Your task to perform on an android device: Go to internet settings Image 0: 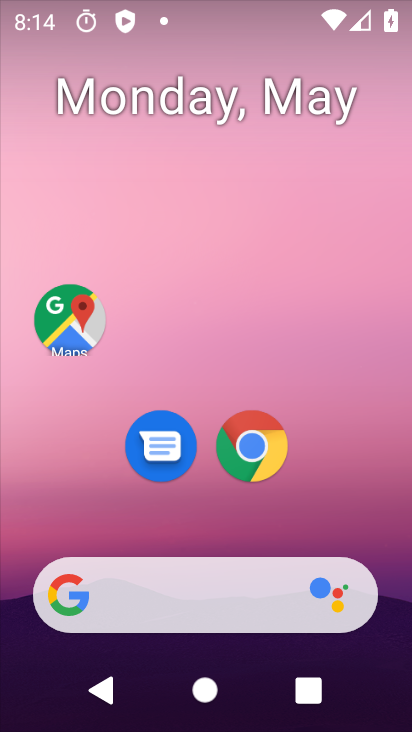
Step 0: drag from (355, 520) to (269, 2)
Your task to perform on an android device: Go to internet settings Image 1: 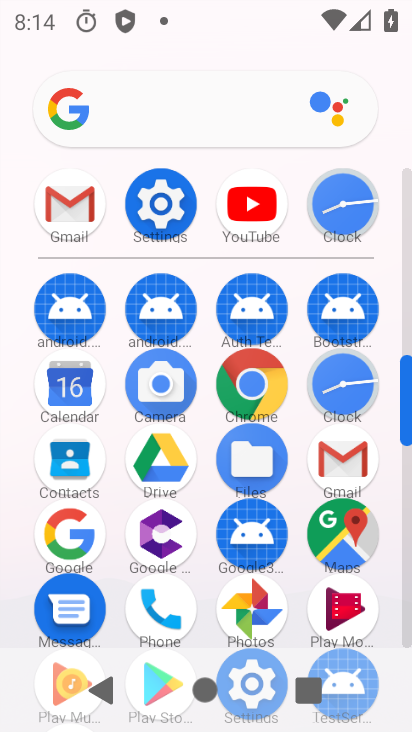
Step 1: click (156, 205)
Your task to perform on an android device: Go to internet settings Image 2: 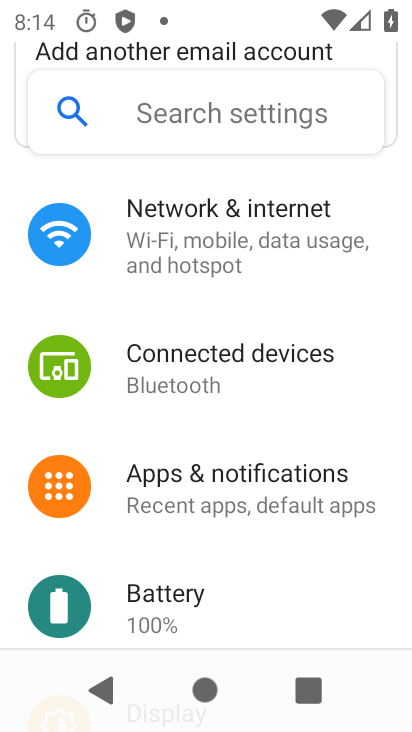
Step 2: click (172, 206)
Your task to perform on an android device: Go to internet settings Image 3: 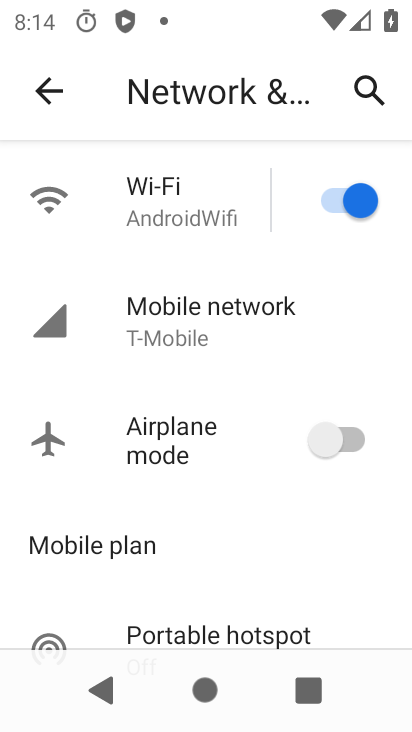
Step 3: task complete